Your task to perform on an android device: What's on my calendar today? Image 0: 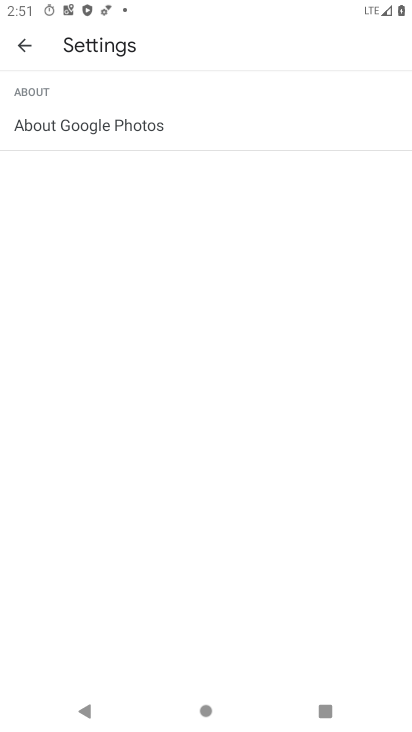
Step 0: press home button
Your task to perform on an android device: What's on my calendar today? Image 1: 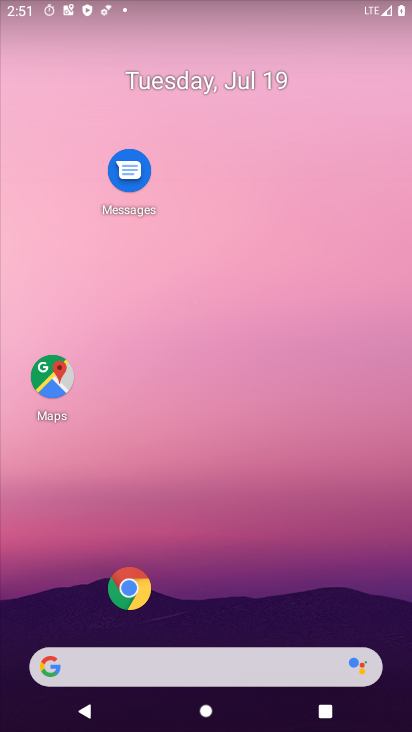
Step 1: drag from (35, 677) to (125, 174)
Your task to perform on an android device: What's on my calendar today? Image 2: 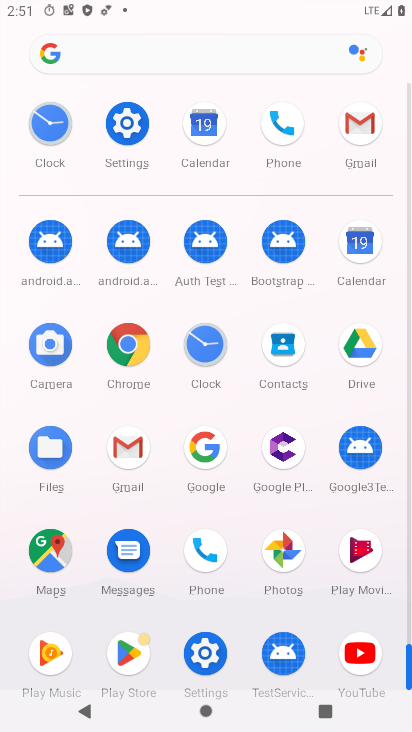
Step 2: click (357, 243)
Your task to perform on an android device: What's on my calendar today? Image 3: 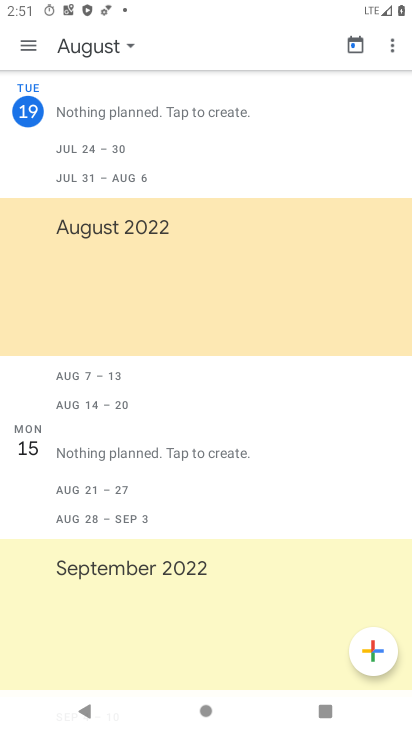
Step 3: click (120, 50)
Your task to perform on an android device: What's on my calendar today? Image 4: 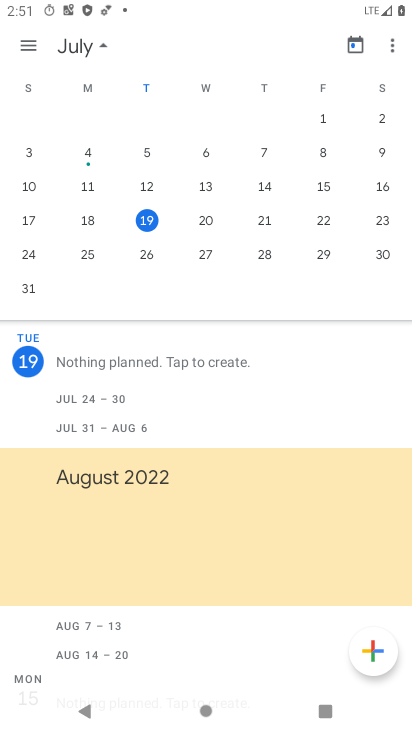
Step 4: task complete